Your task to perform on an android device: Go to CNN.com Image 0: 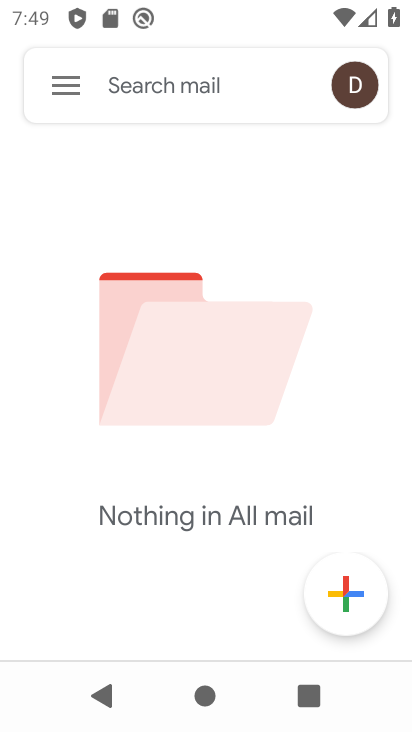
Step 0: press home button
Your task to perform on an android device: Go to CNN.com Image 1: 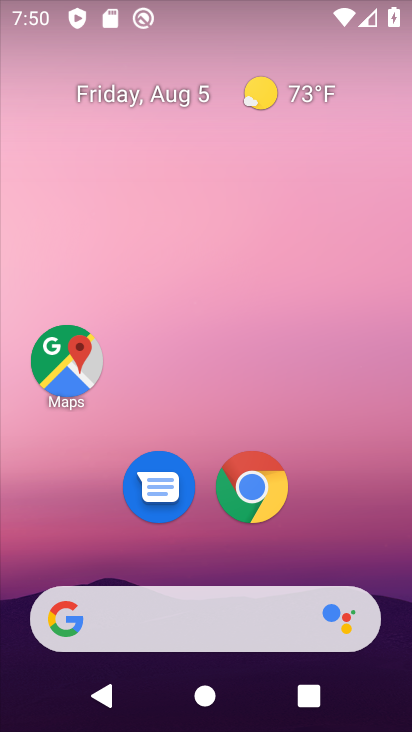
Step 1: click (253, 483)
Your task to perform on an android device: Go to CNN.com Image 2: 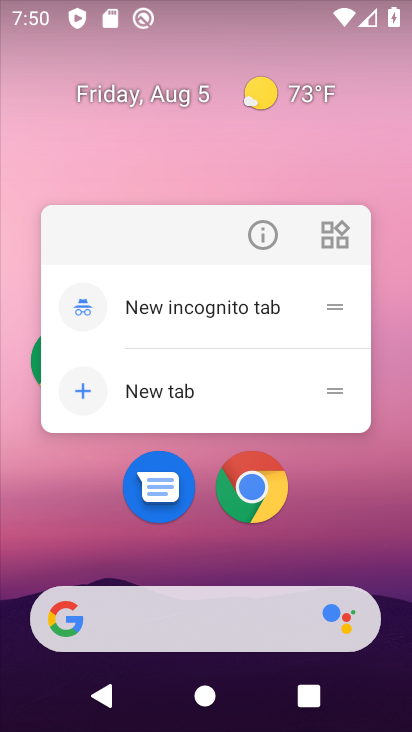
Step 2: click (253, 486)
Your task to perform on an android device: Go to CNN.com Image 3: 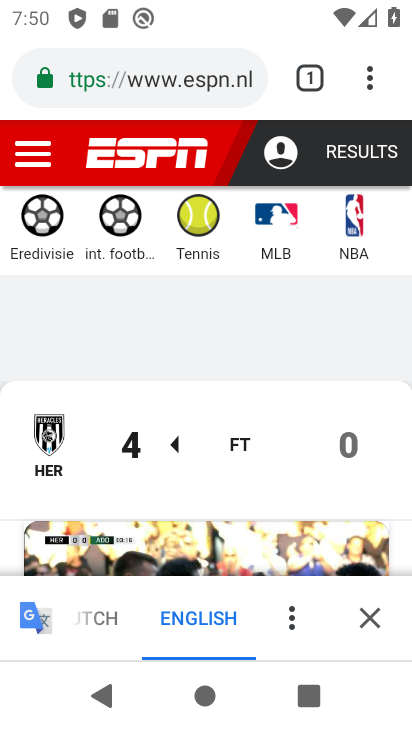
Step 3: drag from (365, 80) to (203, 554)
Your task to perform on an android device: Go to CNN.com Image 4: 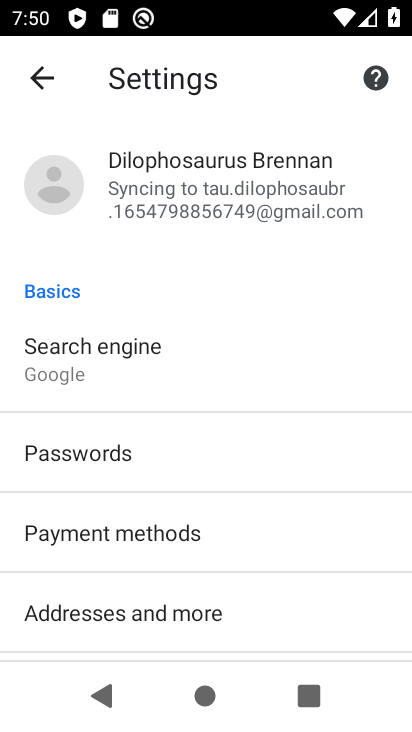
Step 4: click (43, 65)
Your task to perform on an android device: Go to CNN.com Image 5: 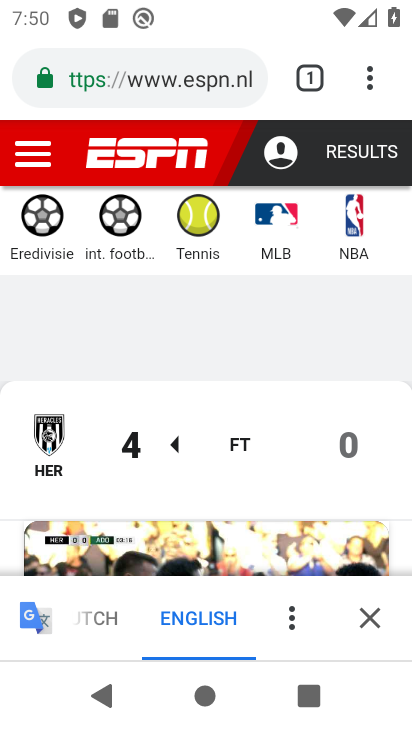
Step 5: drag from (372, 77) to (220, 157)
Your task to perform on an android device: Go to CNN.com Image 6: 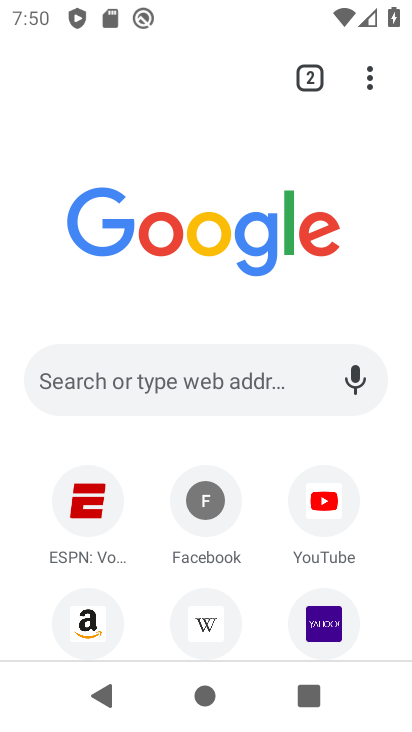
Step 6: drag from (257, 575) to (267, 126)
Your task to perform on an android device: Go to CNN.com Image 7: 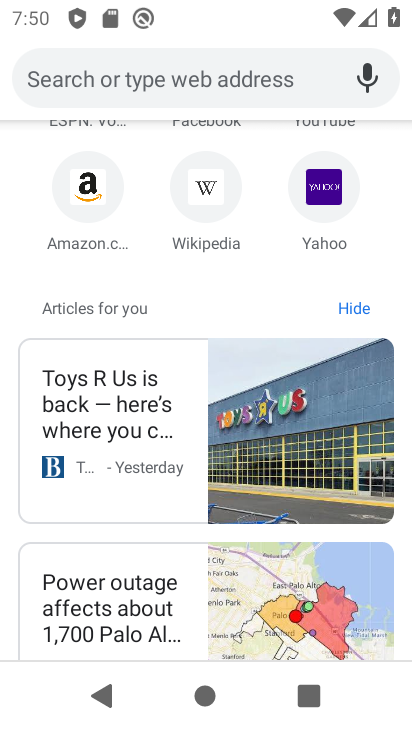
Step 7: drag from (138, 181) to (150, 460)
Your task to perform on an android device: Go to CNN.com Image 8: 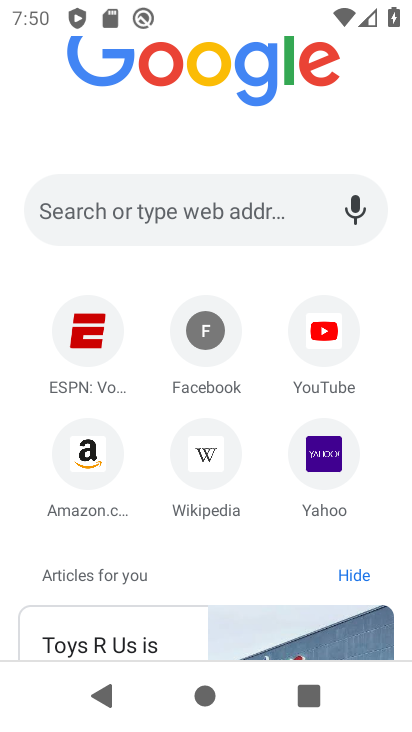
Step 8: click (99, 206)
Your task to perform on an android device: Go to CNN.com Image 9: 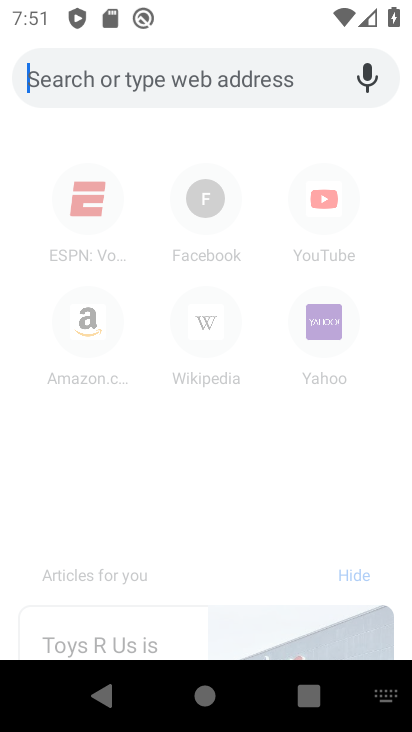
Step 9: type "CNN.com"
Your task to perform on an android device: Go to CNN.com Image 10: 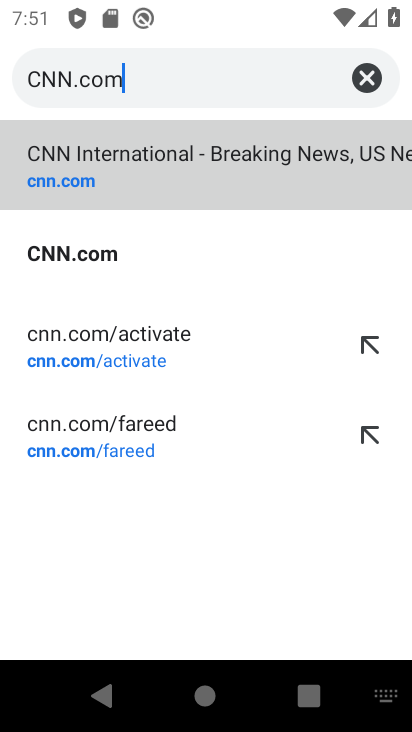
Step 10: click (164, 167)
Your task to perform on an android device: Go to CNN.com Image 11: 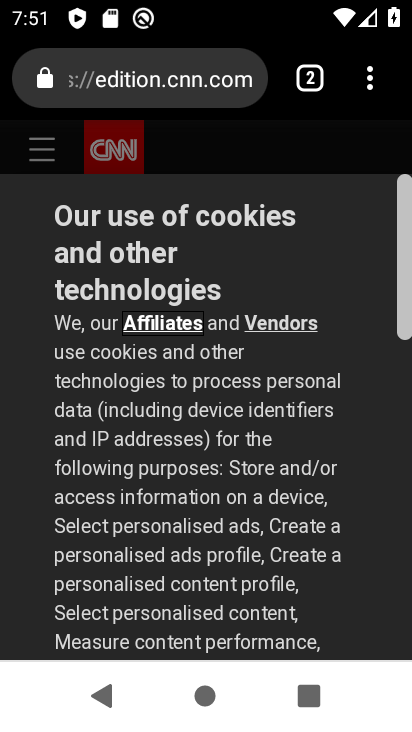
Step 11: task complete